Your task to perform on an android device: Go to Wikipedia Image 0: 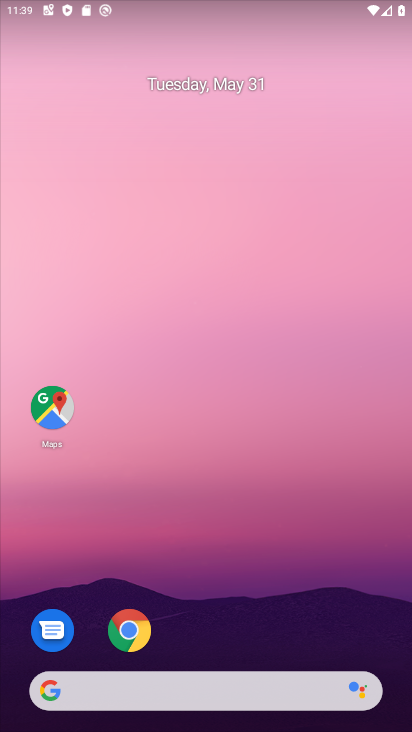
Step 0: click (216, 692)
Your task to perform on an android device: Go to Wikipedia Image 1: 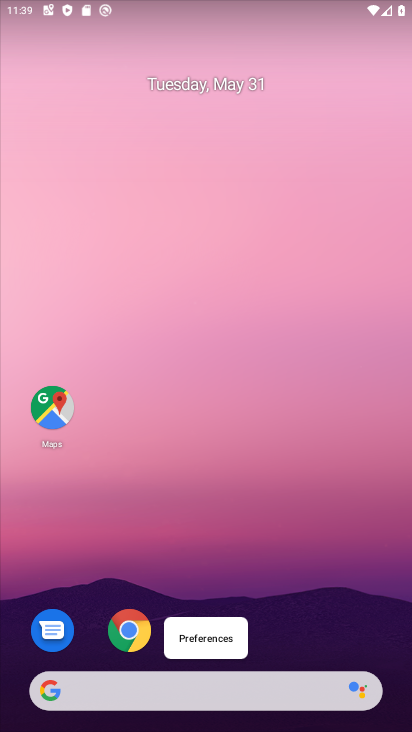
Step 1: click (235, 694)
Your task to perform on an android device: Go to Wikipedia Image 2: 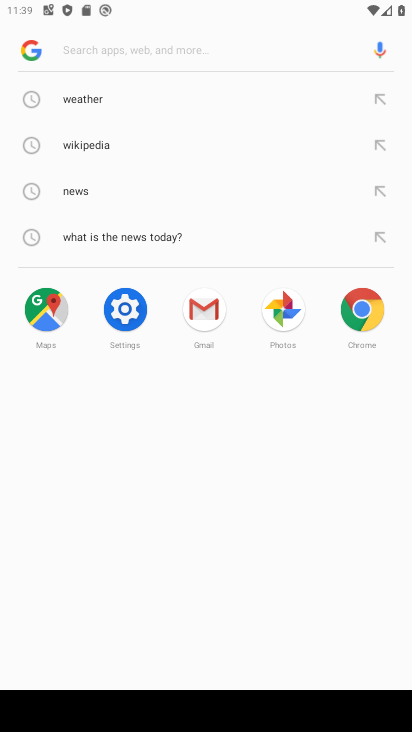
Step 2: type "Wikipedia"
Your task to perform on an android device: Go to Wikipedia Image 3: 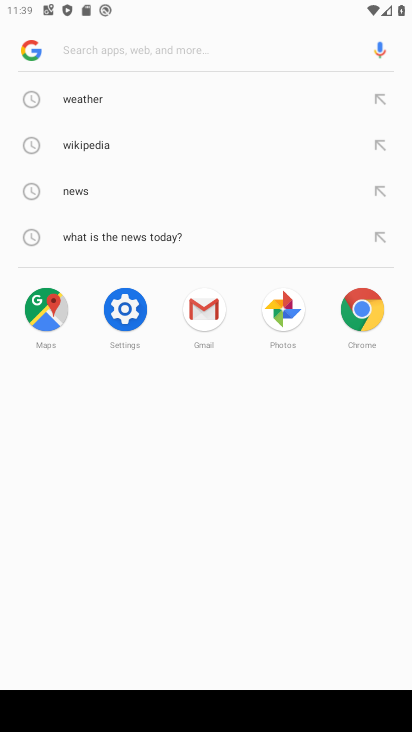
Step 3: click (161, 39)
Your task to perform on an android device: Go to Wikipedia Image 4: 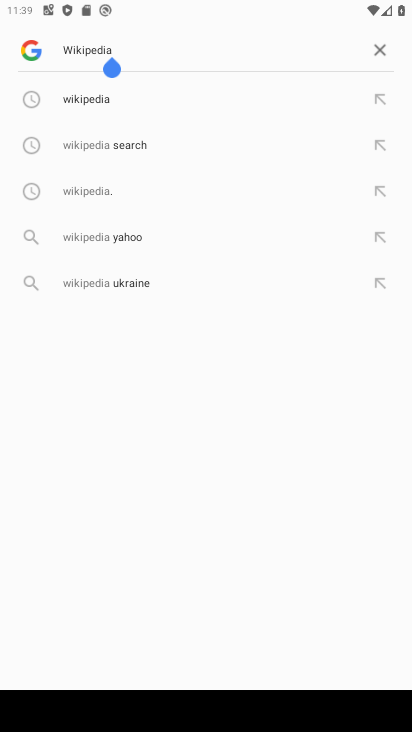
Step 4: click (70, 100)
Your task to perform on an android device: Go to Wikipedia Image 5: 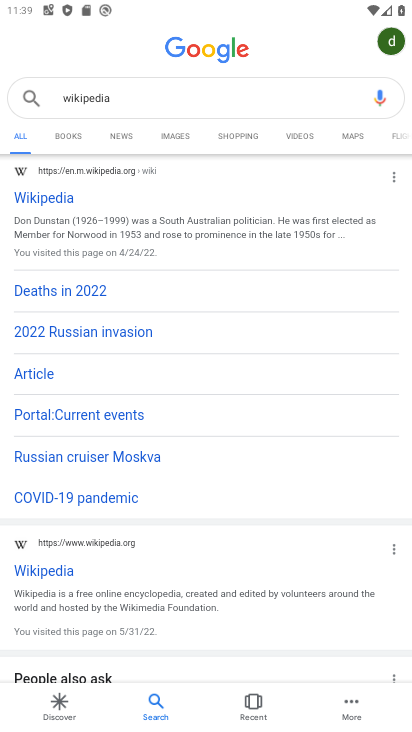
Step 5: click (50, 199)
Your task to perform on an android device: Go to Wikipedia Image 6: 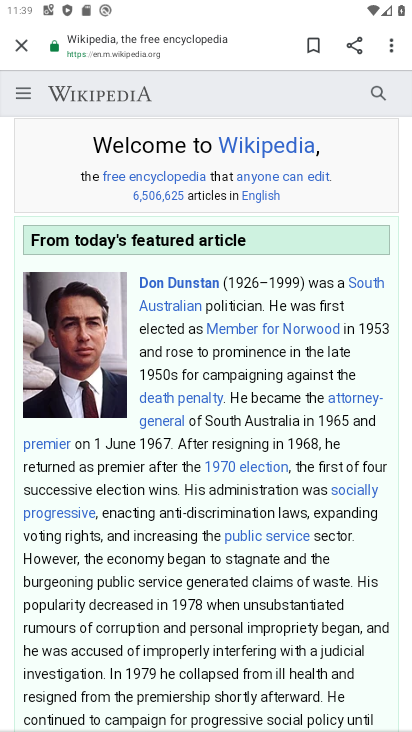
Step 6: task complete